Your task to perform on an android device: toggle wifi Image 0: 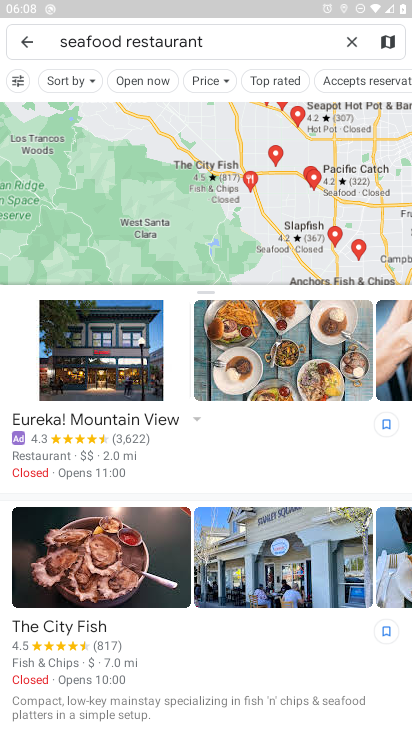
Step 0: press home button
Your task to perform on an android device: toggle wifi Image 1: 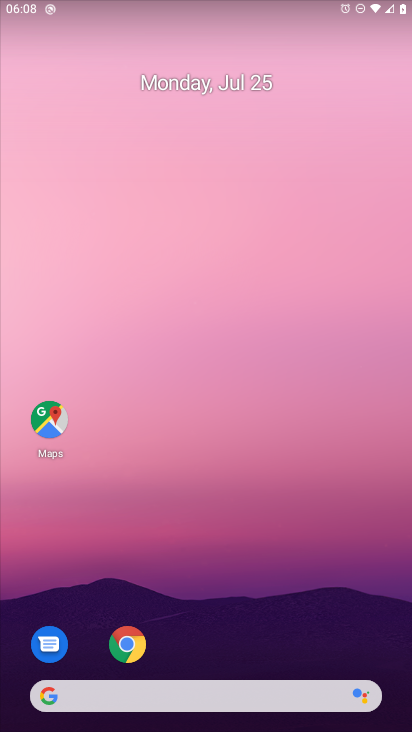
Step 1: drag from (215, 107) to (222, 507)
Your task to perform on an android device: toggle wifi Image 2: 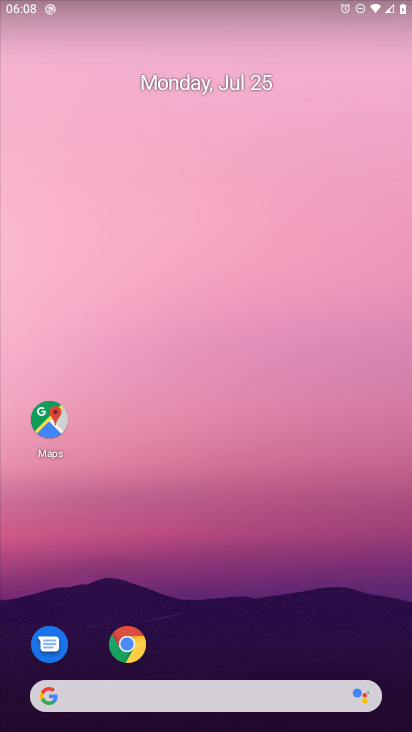
Step 2: drag from (211, 4) to (166, 395)
Your task to perform on an android device: toggle wifi Image 3: 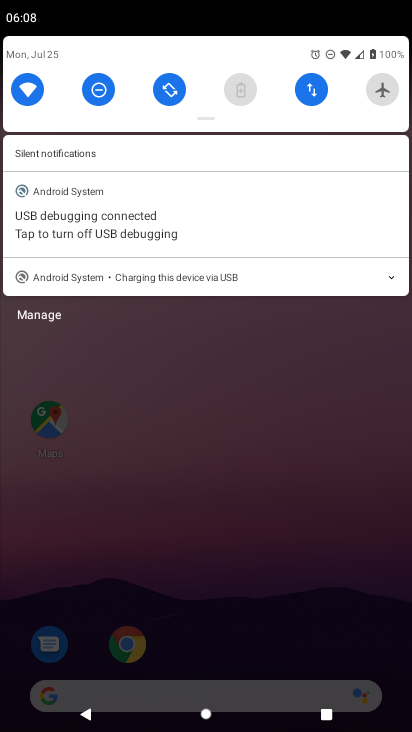
Step 3: click (39, 82)
Your task to perform on an android device: toggle wifi Image 4: 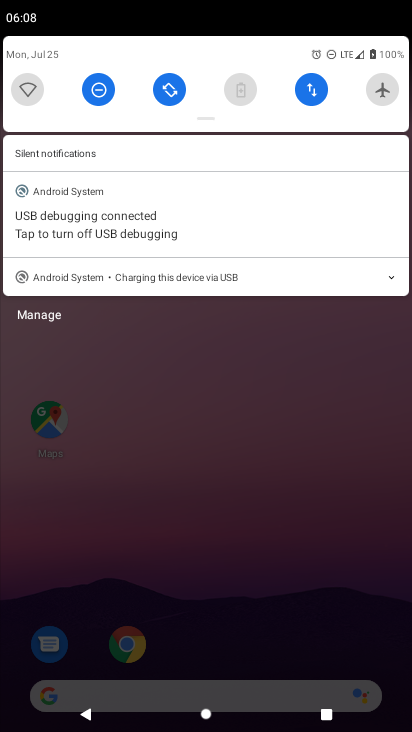
Step 4: task complete